Your task to perform on an android device: Play the last video I watched on Youtube Image 0: 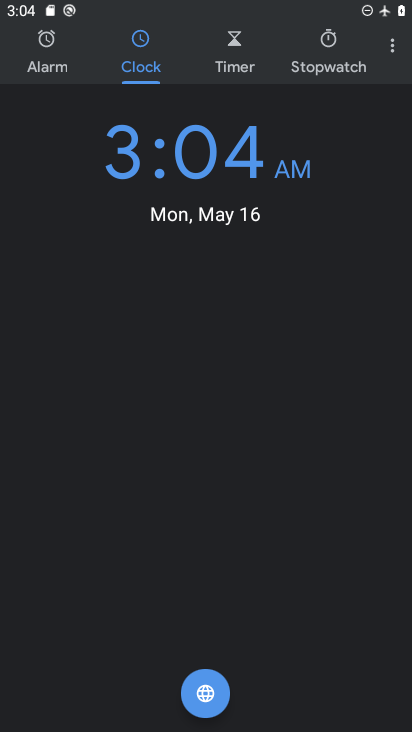
Step 0: press back button
Your task to perform on an android device: Play the last video I watched on Youtube Image 1: 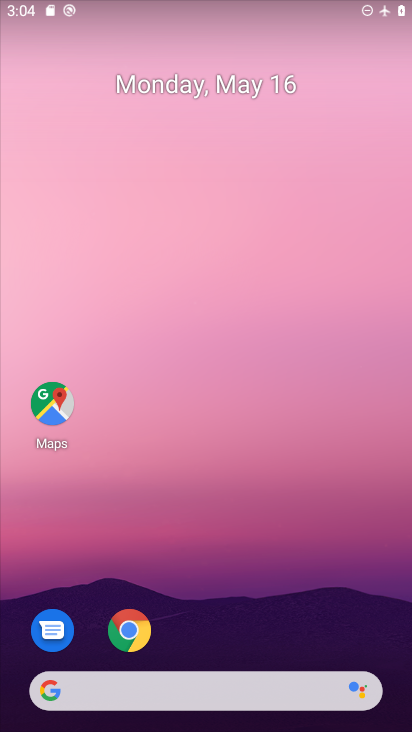
Step 1: drag from (184, 541) to (162, 81)
Your task to perform on an android device: Play the last video I watched on Youtube Image 2: 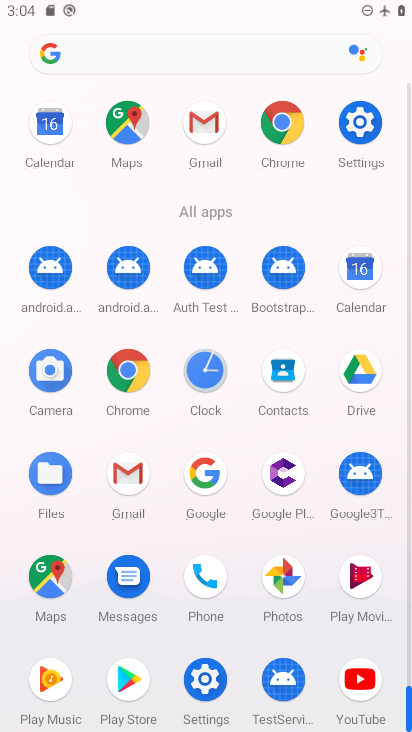
Step 2: click (364, 677)
Your task to perform on an android device: Play the last video I watched on Youtube Image 3: 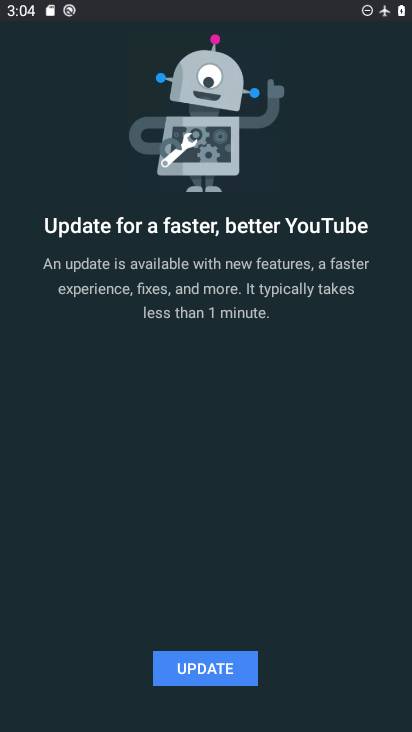
Step 3: click (177, 667)
Your task to perform on an android device: Play the last video I watched on Youtube Image 4: 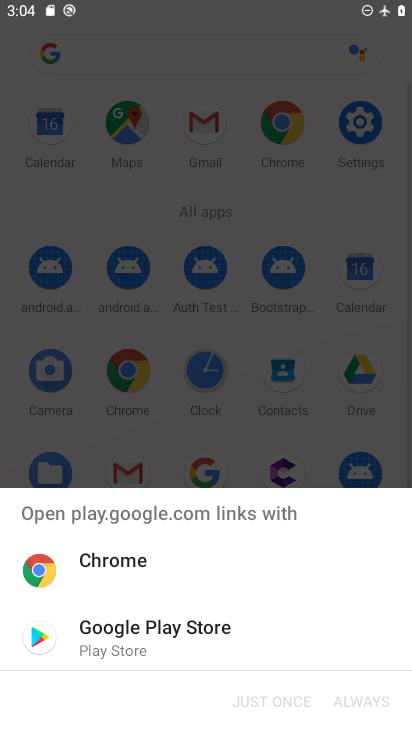
Step 4: click (123, 614)
Your task to perform on an android device: Play the last video I watched on Youtube Image 5: 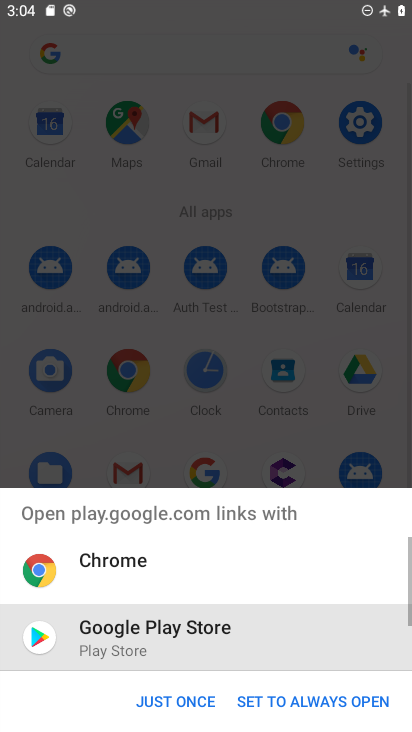
Step 5: click (159, 700)
Your task to perform on an android device: Play the last video I watched on Youtube Image 6: 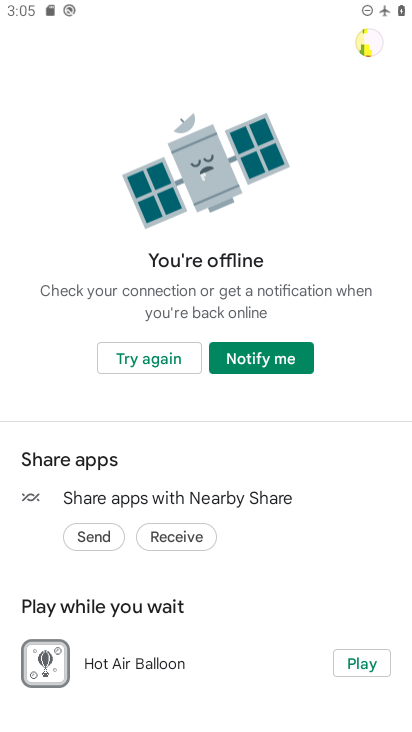
Step 6: click (144, 361)
Your task to perform on an android device: Play the last video I watched on Youtube Image 7: 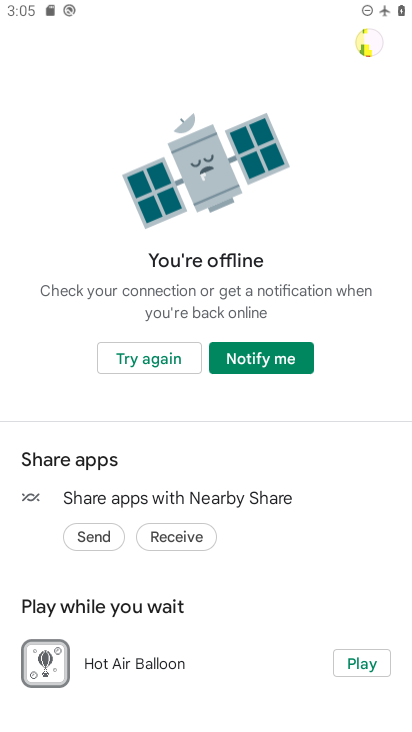
Step 7: task complete